Your task to perform on an android device: Search for sushi restaurants on Maps Image 0: 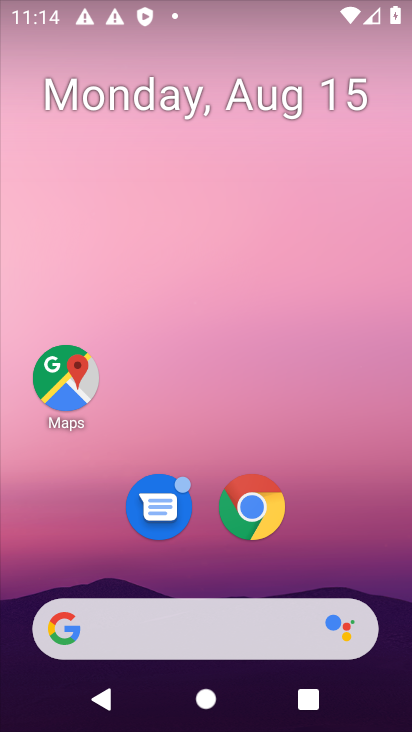
Step 0: click (62, 376)
Your task to perform on an android device: Search for sushi restaurants on Maps Image 1: 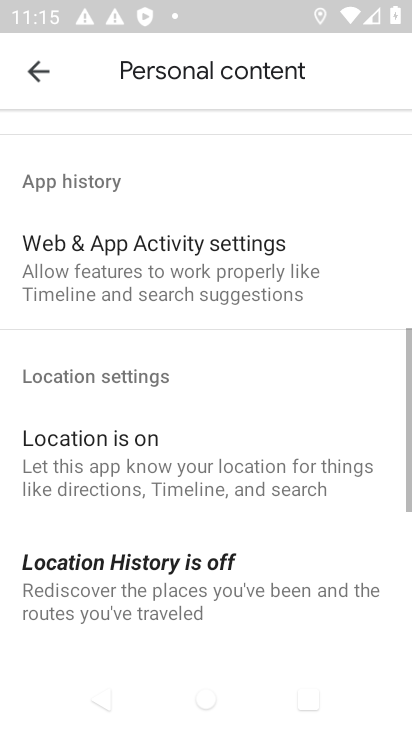
Step 1: click (48, 68)
Your task to perform on an android device: Search for sushi restaurants on Maps Image 2: 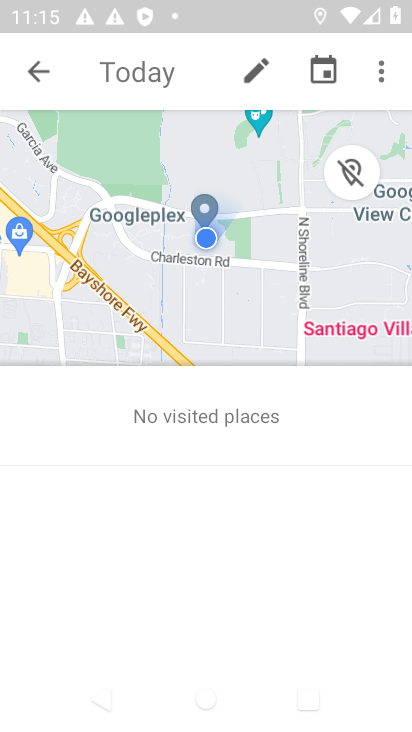
Step 2: click (45, 66)
Your task to perform on an android device: Search for sushi restaurants on Maps Image 3: 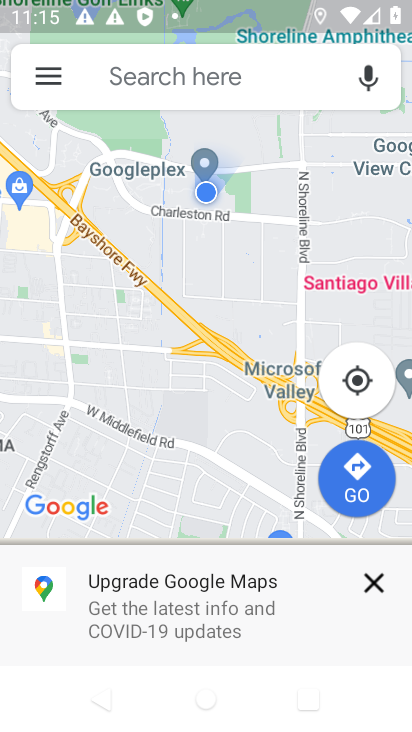
Step 3: click (134, 76)
Your task to perform on an android device: Search for sushi restaurants on Maps Image 4: 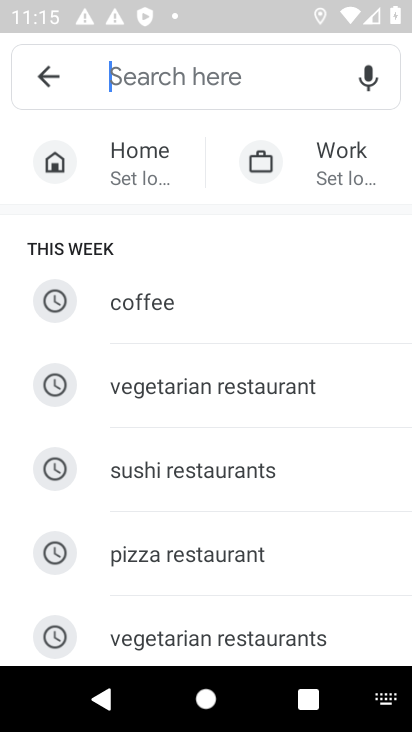
Step 4: click (204, 472)
Your task to perform on an android device: Search for sushi restaurants on Maps Image 5: 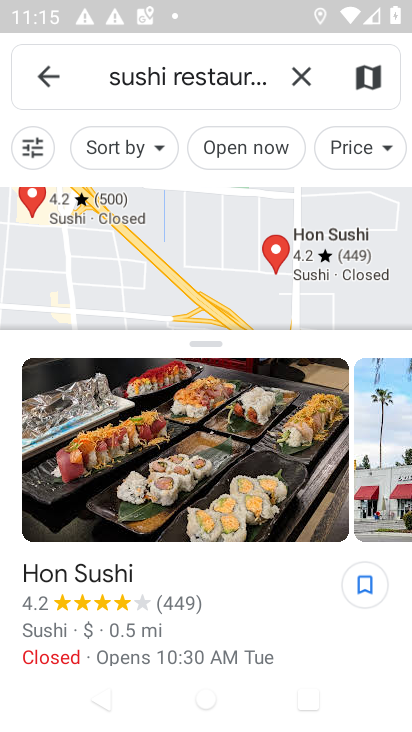
Step 5: task complete